Your task to perform on an android device: Go to Reddit.com Image 0: 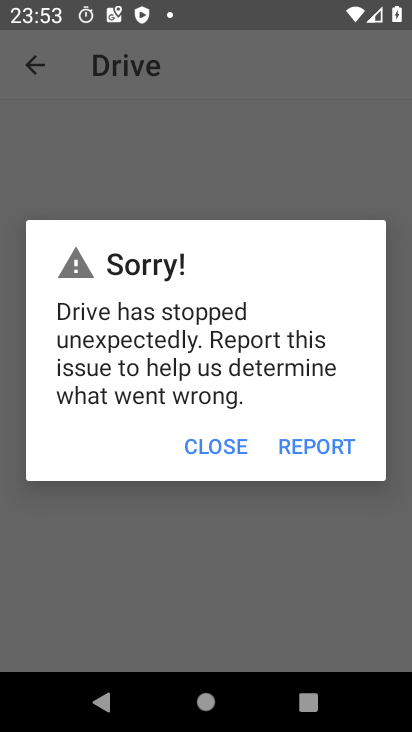
Step 0: drag from (166, 570) to (253, 252)
Your task to perform on an android device: Go to Reddit.com Image 1: 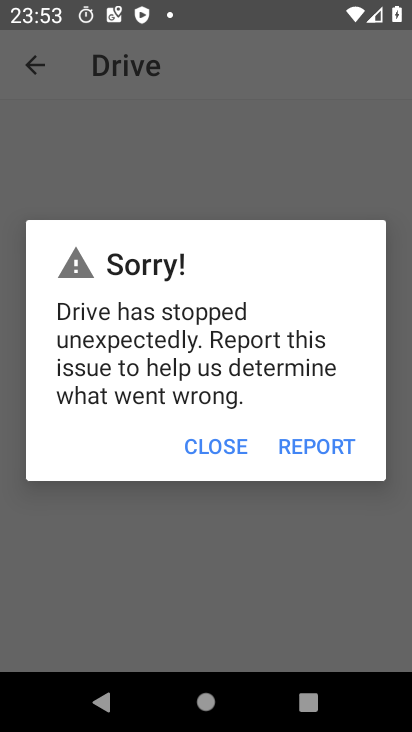
Step 1: click (248, 340)
Your task to perform on an android device: Go to Reddit.com Image 2: 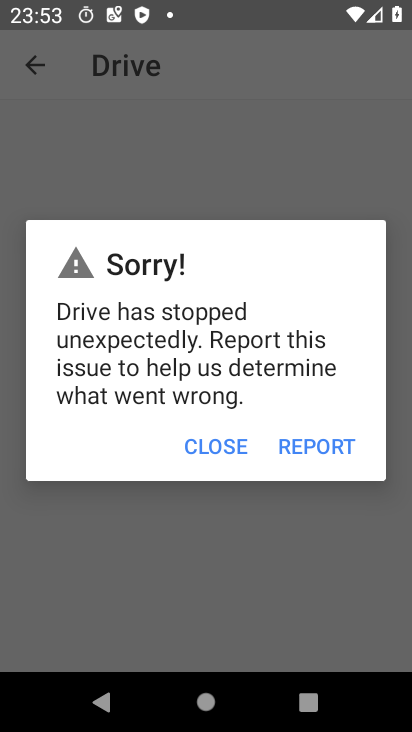
Step 2: drag from (165, 390) to (236, 217)
Your task to perform on an android device: Go to Reddit.com Image 3: 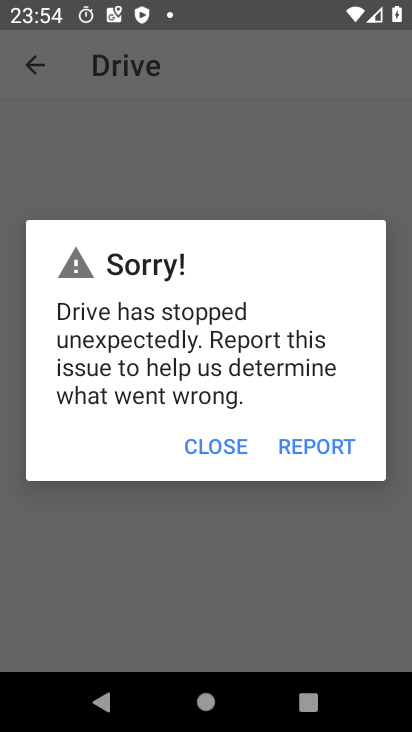
Step 3: press home button
Your task to perform on an android device: Go to Reddit.com Image 4: 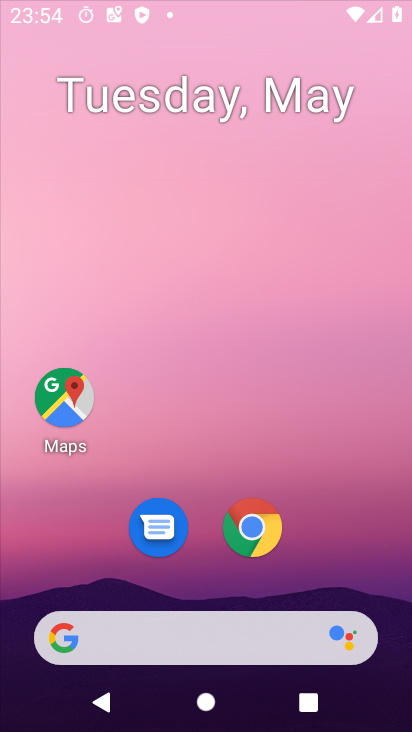
Step 4: drag from (198, 594) to (249, 96)
Your task to perform on an android device: Go to Reddit.com Image 5: 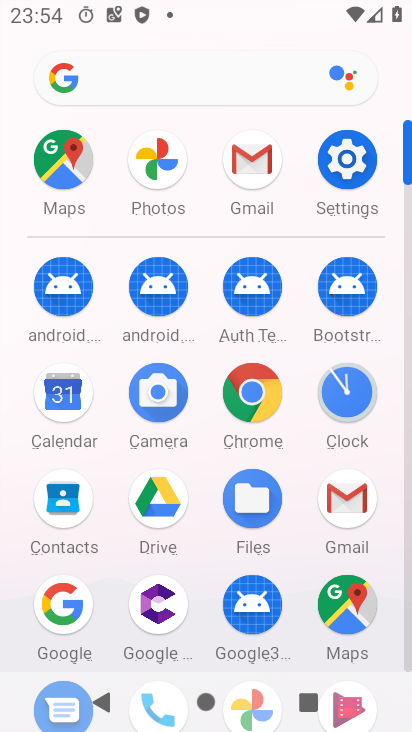
Step 5: click (164, 76)
Your task to perform on an android device: Go to Reddit.com Image 6: 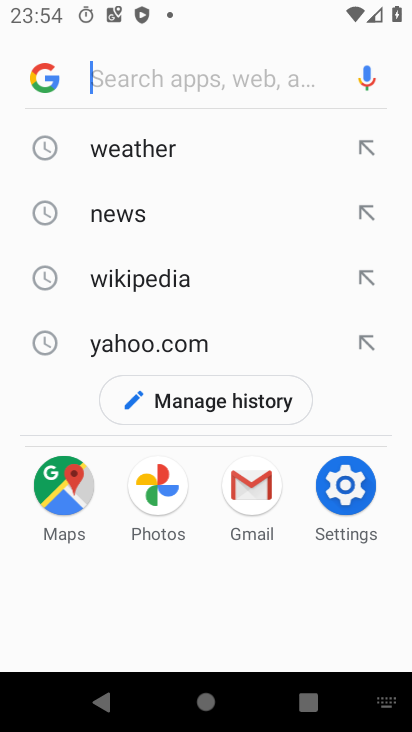
Step 6: drag from (174, 327) to (210, 115)
Your task to perform on an android device: Go to Reddit.com Image 7: 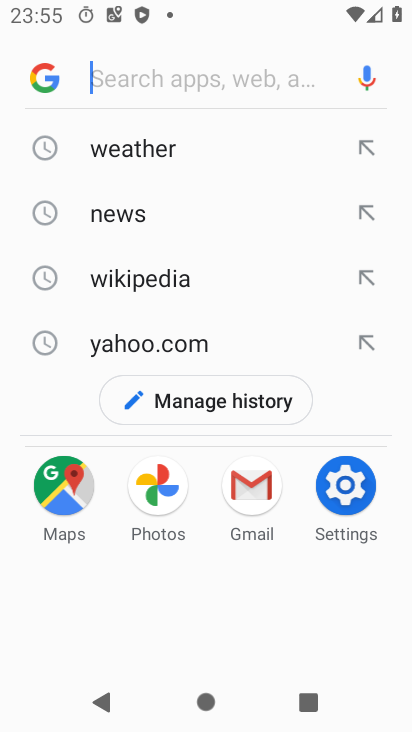
Step 7: click (133, 75)
Your task to perform on an android device: Go to Reddit.com Image 8: 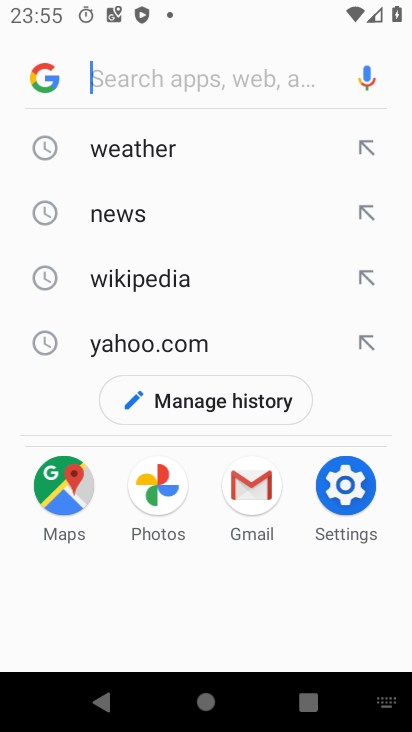
Step 8: type "Reddit.com"
Your task to perform on an android device: Go to Reddit.com Image 9: 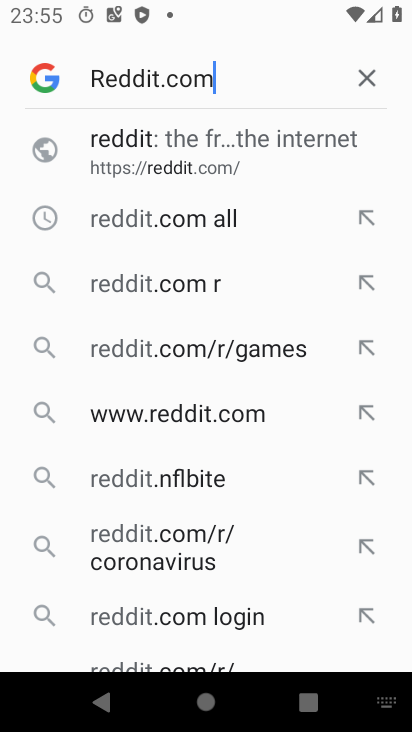
Step 9: type ""
Your task to perform on an android device: Go to Reddit.com Image 10: 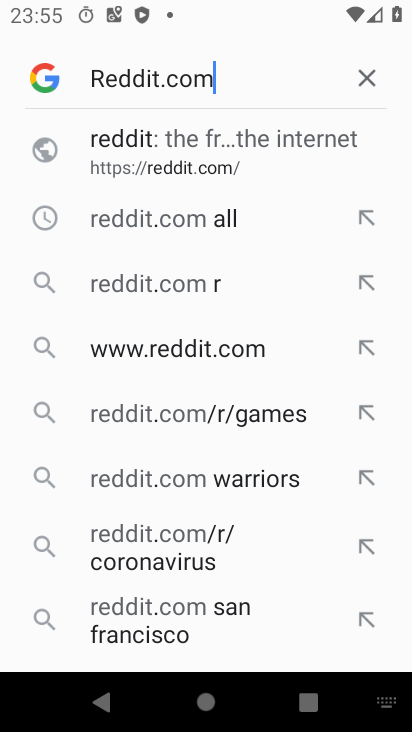
Step 10: click (243, 144)
Your task to perform on an android device: Go to Reddit.com Image 11: 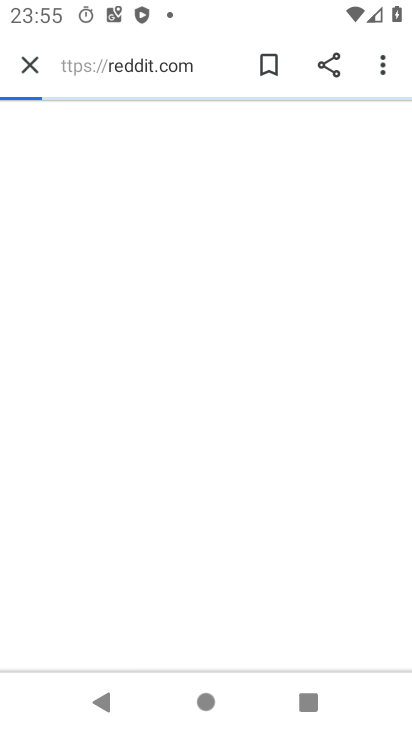
Step 11: task complete